Your task to perform on an android device: delete browsing data in the chrome app Image 0: 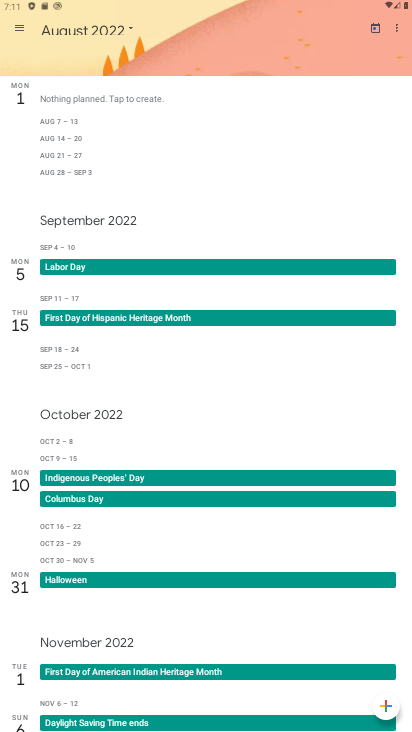
Step 0: press home button
Your task to perform on an android device: delete browsing data in the chrome app Image 1: 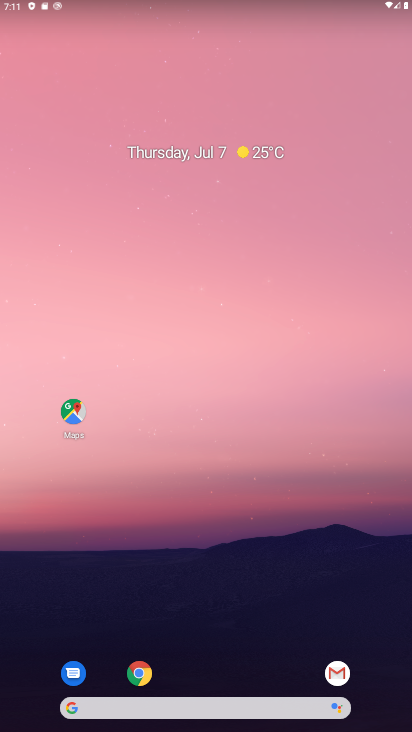
Step 1: click (148, 665)
Your task to perform on an android device: delete browsing data in the chrome app Image 2: 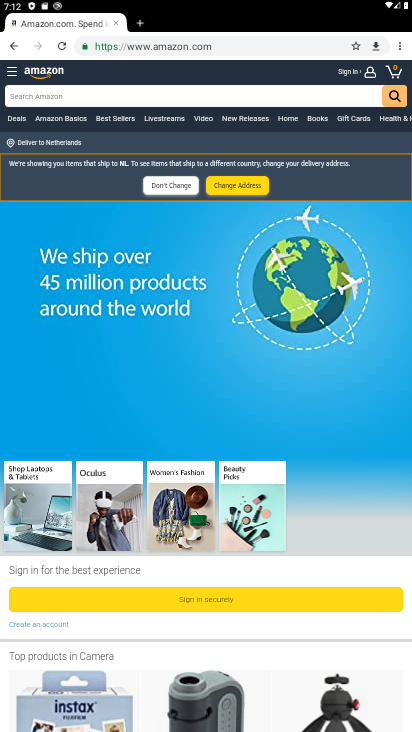
Step 2: click (221, 42)
Your task to perform on an android device: delete browsing data in the chrome app Image 3: 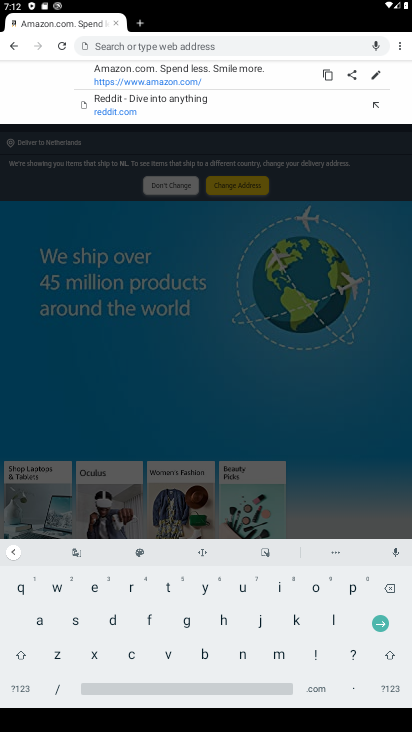
Step 3: click (397, 51)
Your task to perform on an android device: delete browsing data in the chrome app Image 4: 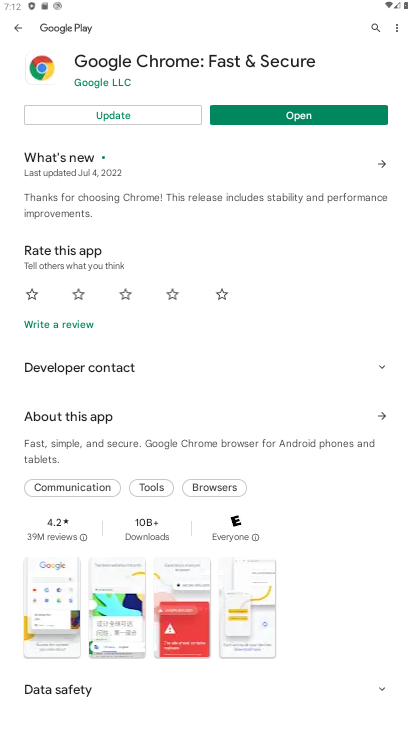
Step 4: press back button
Your task to perform on an android device: delete browsing data in the chrome app Image 5: 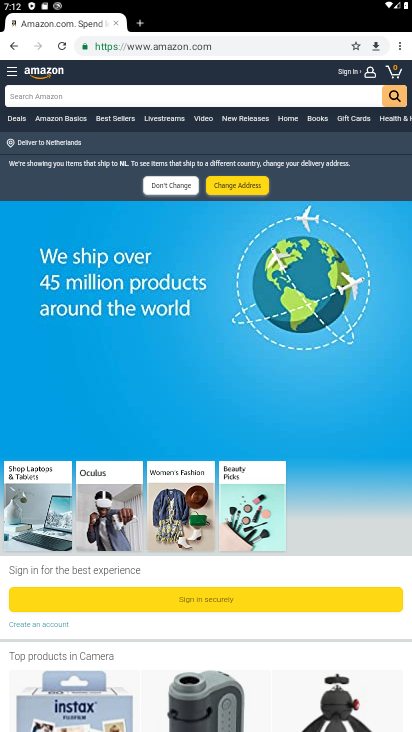
Step 5: click (396, 46)
Your task to perform on an android device: delete browsing data in the chrome app Image 6: 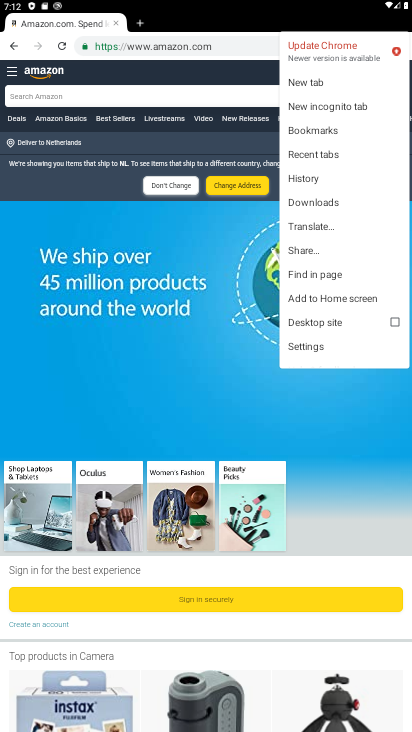
Step 6: click (313, 181)
Your task to perform on an android device: delete browsing data in the chrome app Image 7: 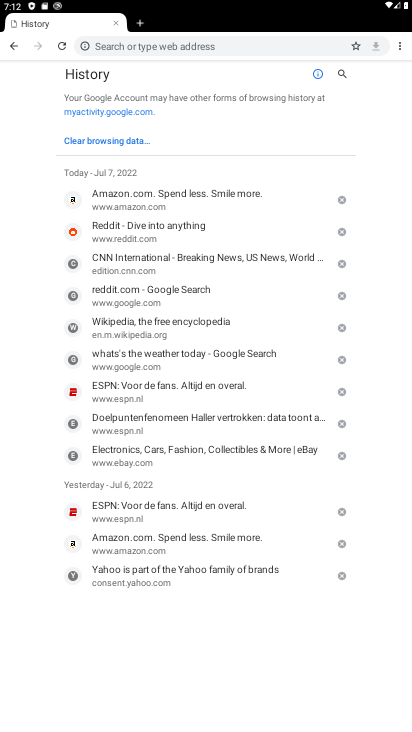
Step 7: click (94, 142)
Your task to perform on an android device: delete browsing data in the chrome app Image 8: 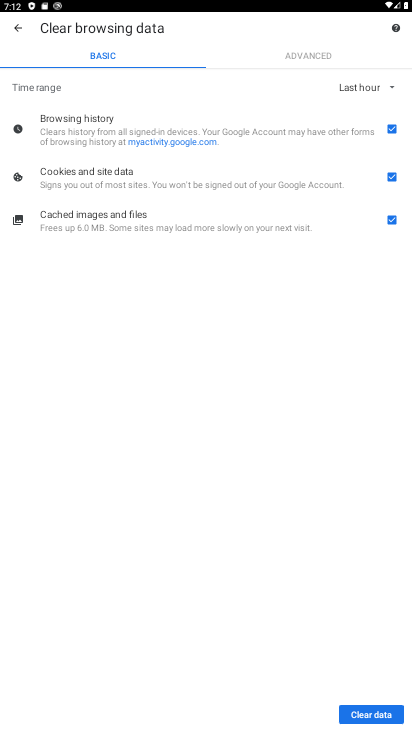
Step 8: click (367, 709)
Your task to perform on an android device: delete browsing data in the chrome app Image 9: 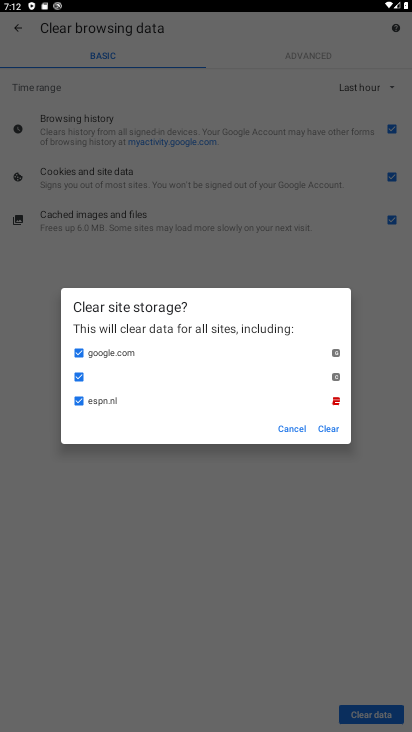
Step 9: click (326, 428)
Your task to perform on an android device: delete browsing data in the chrome app Image 10: 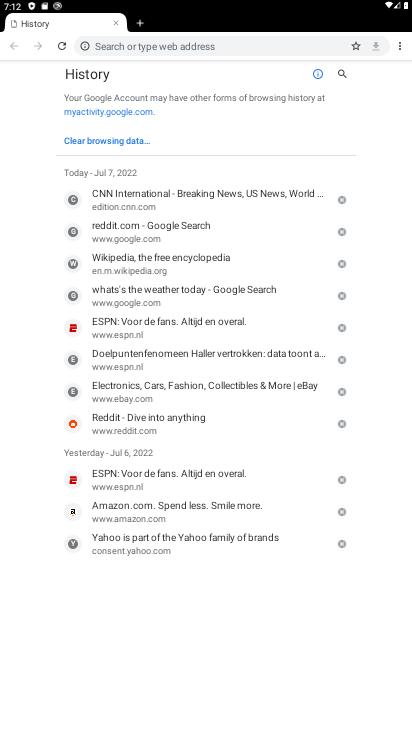
Step 10: task complete